Your task to perform on an android device: Do I have any events today? Image 0: 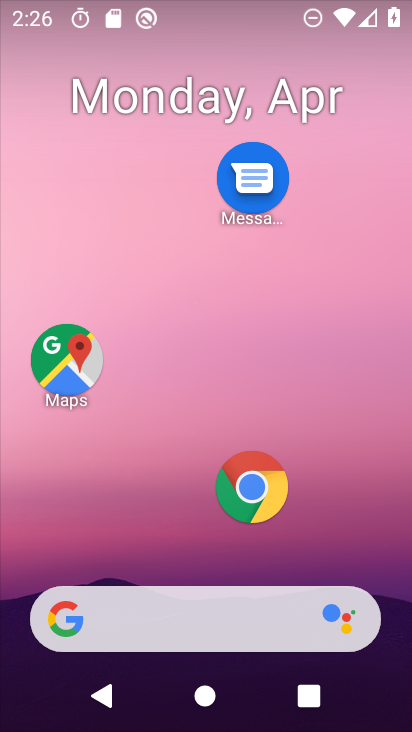
Step 0: drag from (337, 608) to (356, 68)
Your task to perform on an android device: Do I have any events today? Image 1: 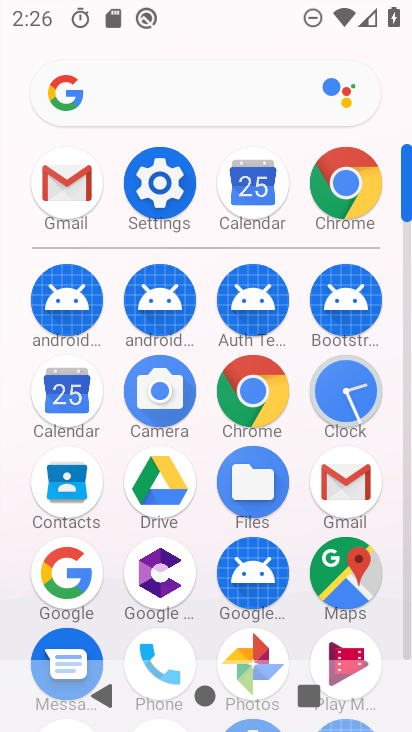
Step 1: click (69, 398)
Your task to perform on an android device: Do I have any events today? Image 2: 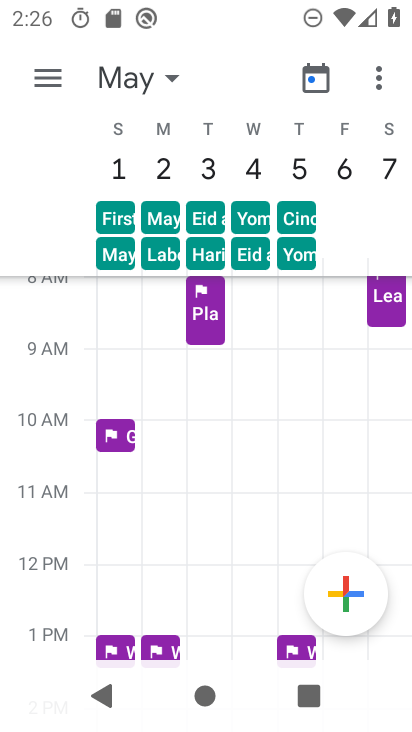
Step 2: click (166, 76)
Your task to perform on an android device: Do I have any events today? Image 3: 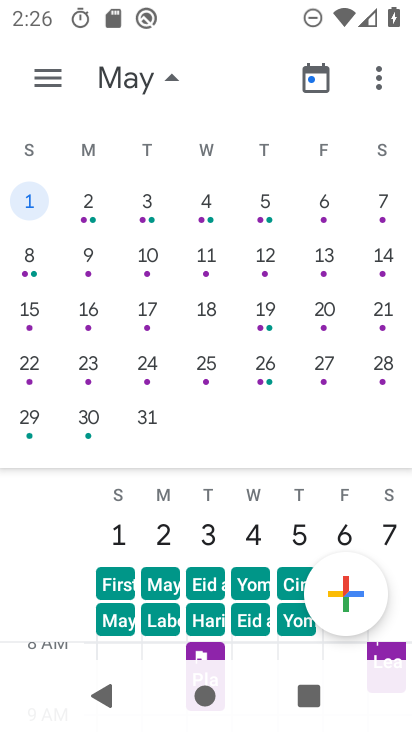
Step 3: drag from (69, 339) to (364, 300)
Your task to perform on an android device: Do I have any events today? Image 4: 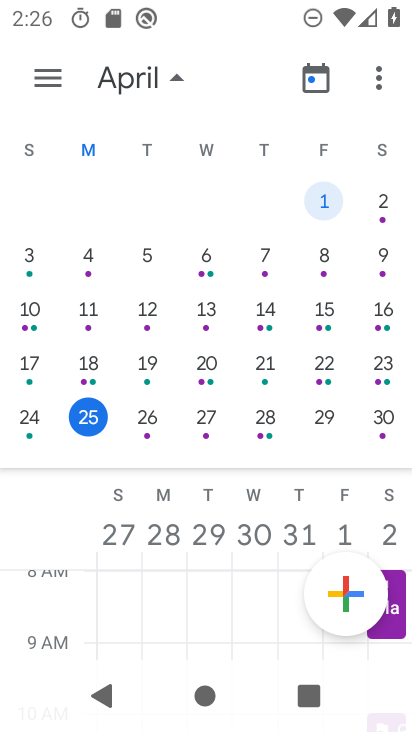
Step 4: click (91, 410)
Your task to perform on an android device: Do I have any events today? Image 5: 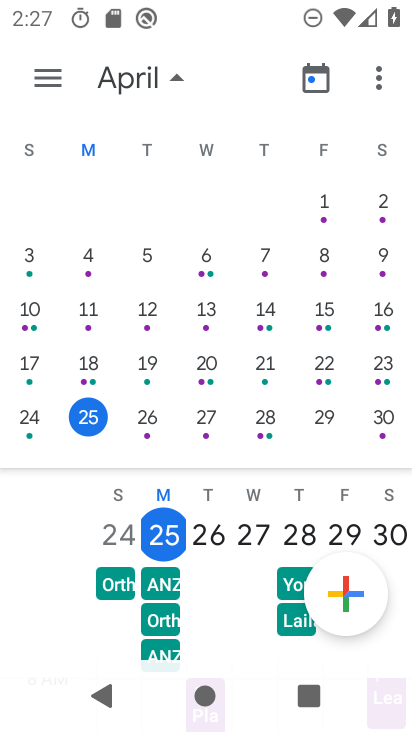
Step 5: task complete